Your task to perform on an android device: Open Google Chrome and open the bookmarks view Image 0: 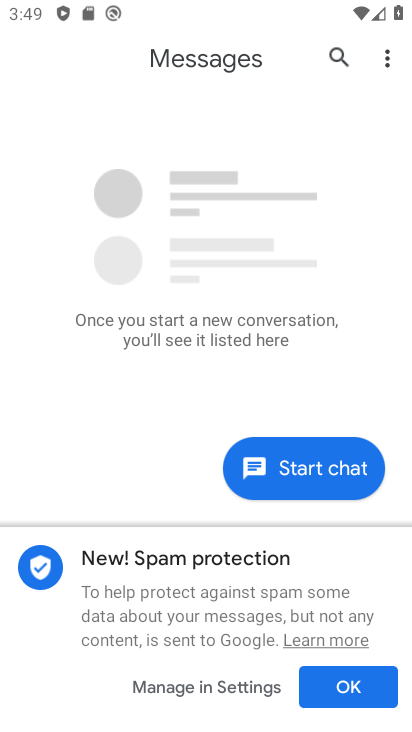
Step 0: press home button
Your task to perform on an android device: Open Google Chrome and open the bookmarks view Image 1: 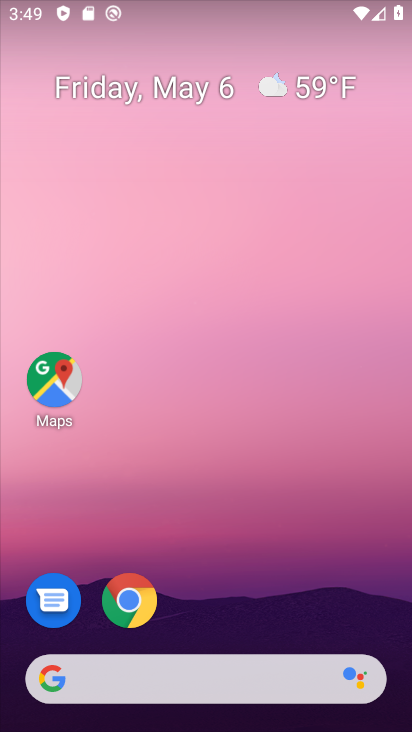
Step 1: click (136, 593)
Your task to perform on an android device: Open Google Chrome and open the bookmarks view Image 2: 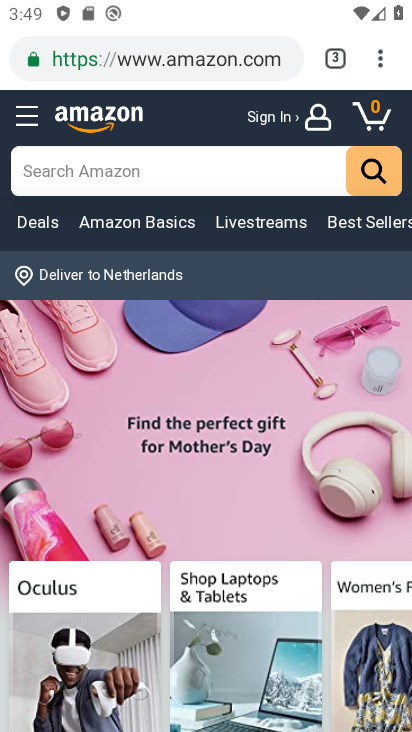
Step 2: click (383, 45)
Your task to perform on an android device: Open Google Chrome and open the bookmarks view Image 3: 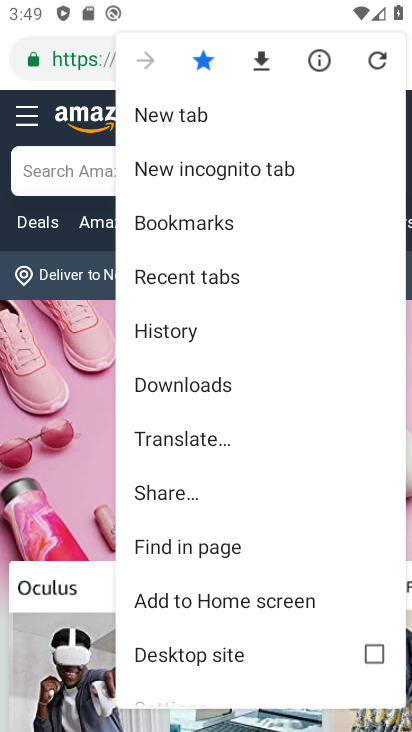
Step 3: click (206, 225)
Your task to perform on an android device: Open Google Chrome and open the bookmarks view Image 4: 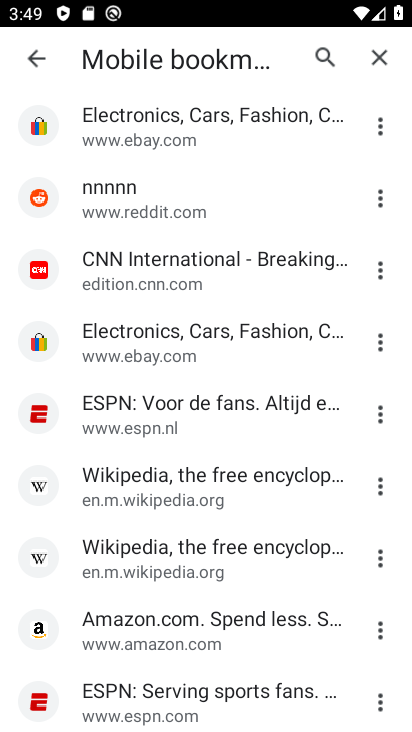
Step 4: drag from (259, 379) to (296, 76)
Your task to perform on an android device: Open Google Chrome and open the bookmarks view Image 5: 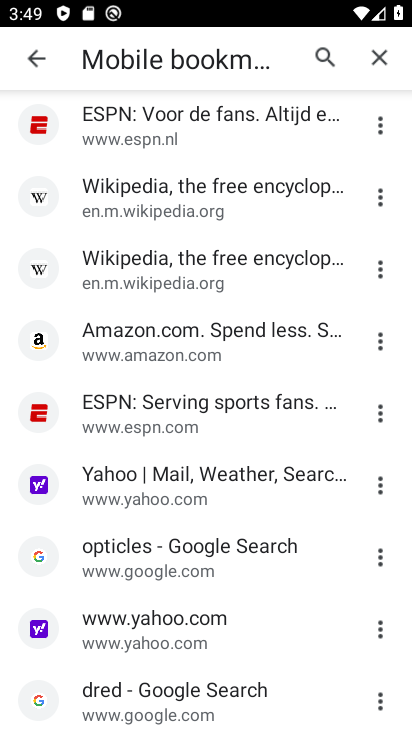
Step 5: click (379, 59)
Your task to perform on an android device: Open Google Chrome and open the bookmarks view Image 6: 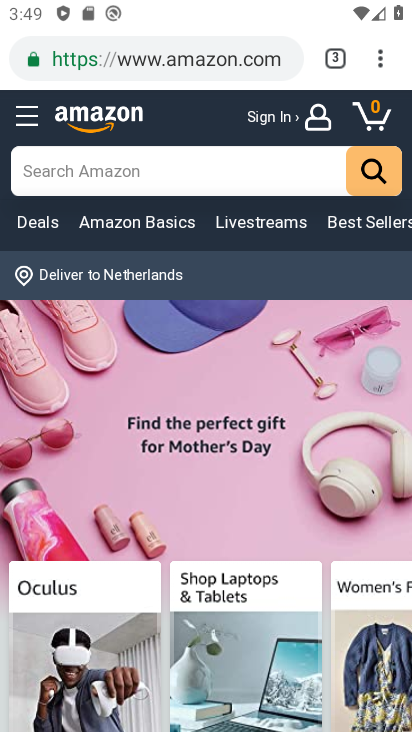
Step 6: click (383, 62)
Your task to perform on an android device: Open Google Chrome and open the bookmarks view Image 7: 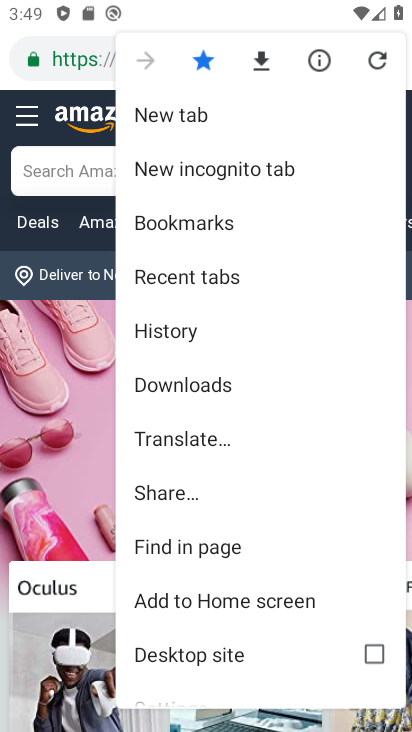
Step 7: click (206, 118)
Your task to perform on an android device: Open Google Chrome and open the bookmarks view Image 8: 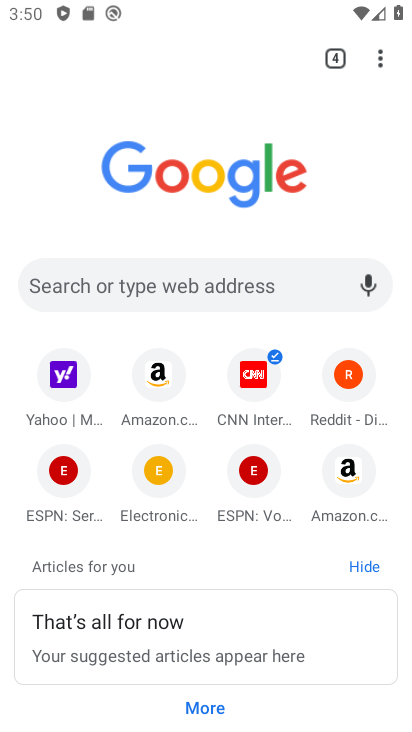
Step 8: task complete